Your task to perform on an android device: check android version Image 0: 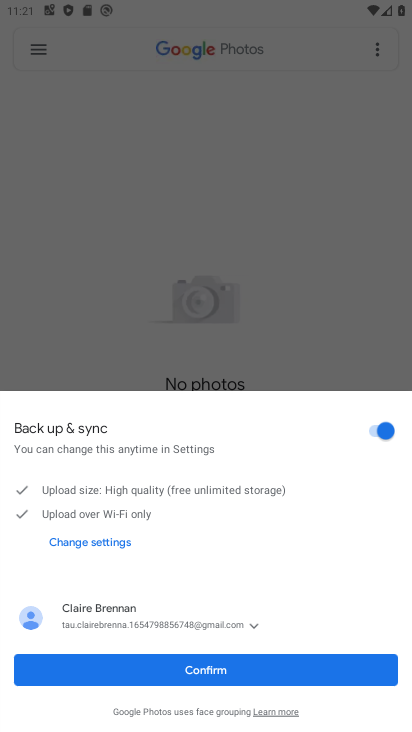
Step 0: press home button
Your task to perform on an android device: check android version Image 1: 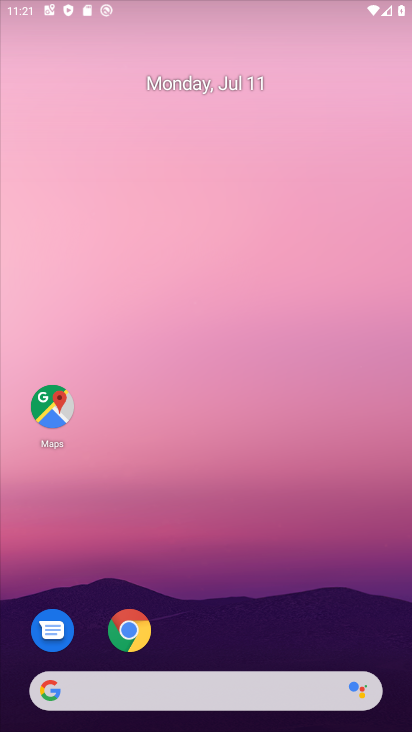
Step 1: drag from (225, 622) to (255, 56)
Your task to perform on an android device: check android version Image 2: 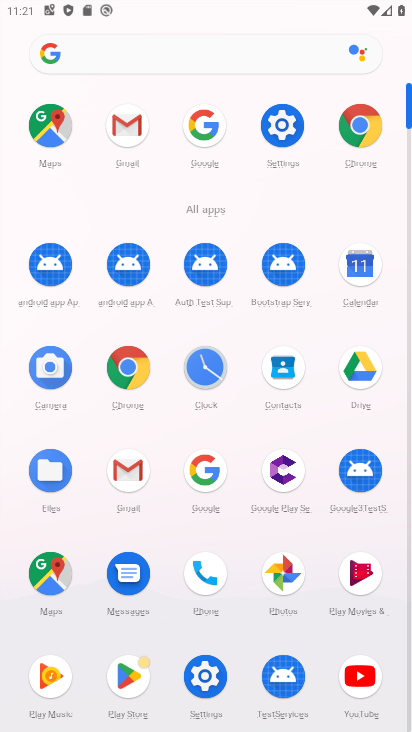
Step 2: click (280, 125)
Your task to perform on an android device: check android version Image 3: 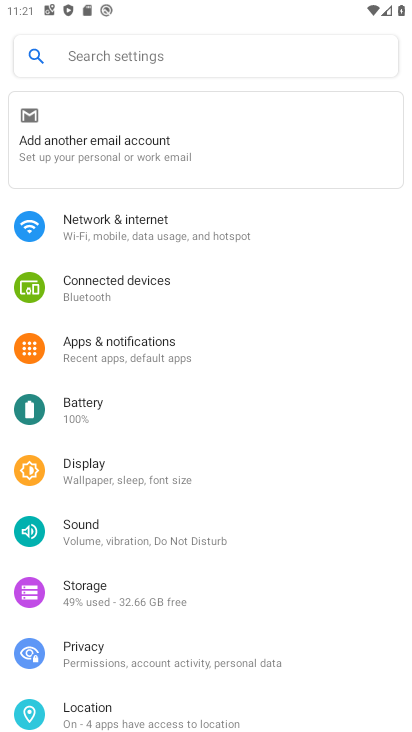
Step 3: drag from (171, 659) to (253, 41)
Your task to perform on an android device: check android version Image 4: 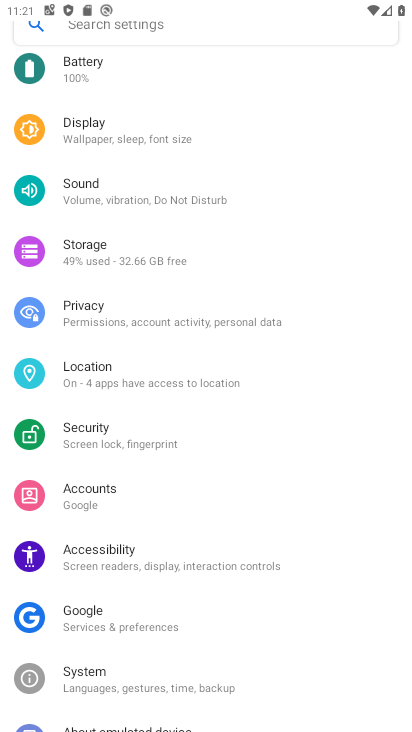
Step 4: drag from (168, 669) to (204, 221)
Your task to perform on an android device: check android version Image 5: 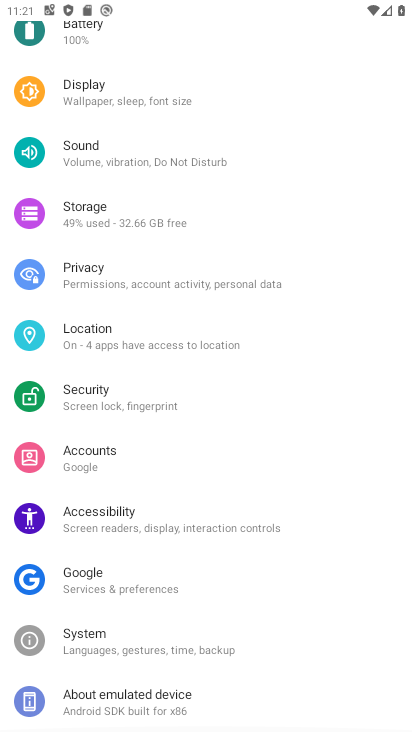
Step 5: click (135, 728)
Your task to perform on an android device: check android version Image 6: 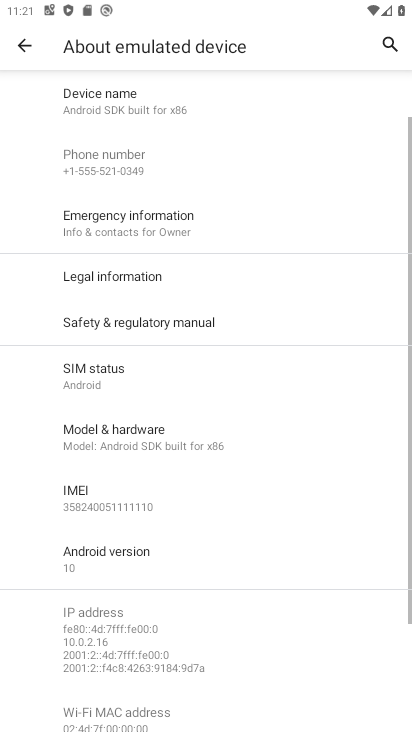
Step 6: click (126, 556)
Your task to perform on an android device: check android version Image 7: 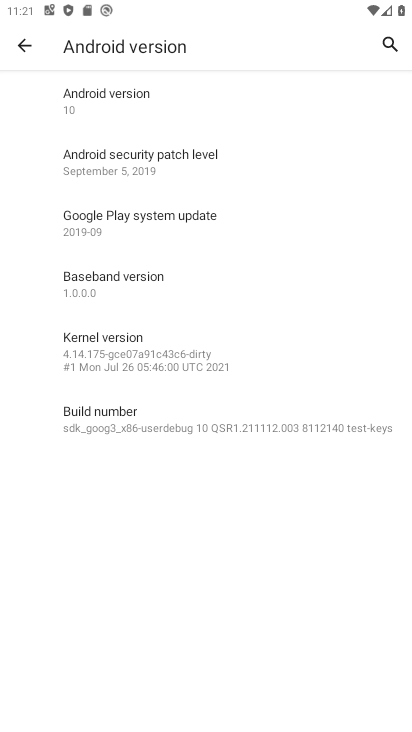
Step 7: task complete